Your task to perform on an android device: turn off notifications settings in the gmail app Image 0: 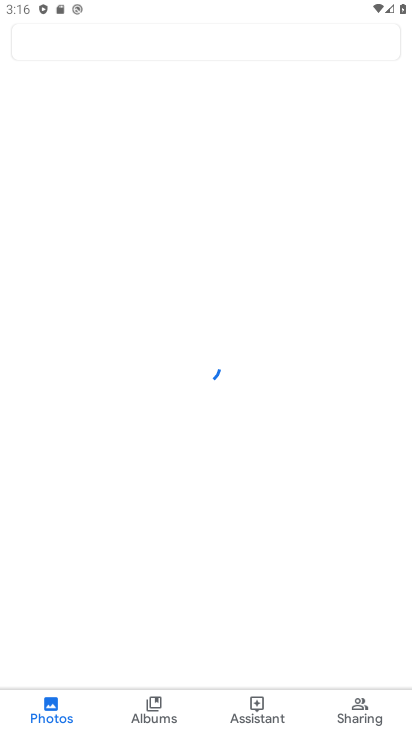
Step 0: press home button
Your task to perform on an android device: turn off notifications settings in the gmail app Image 1: 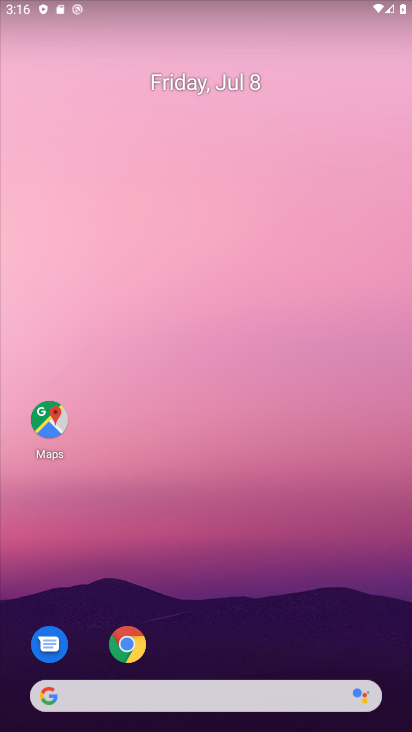
Step 1: drag from (190, 708) to (276, 195)
Your task to perform on an android device: turn off notifications settings in the gmail app Image 2: 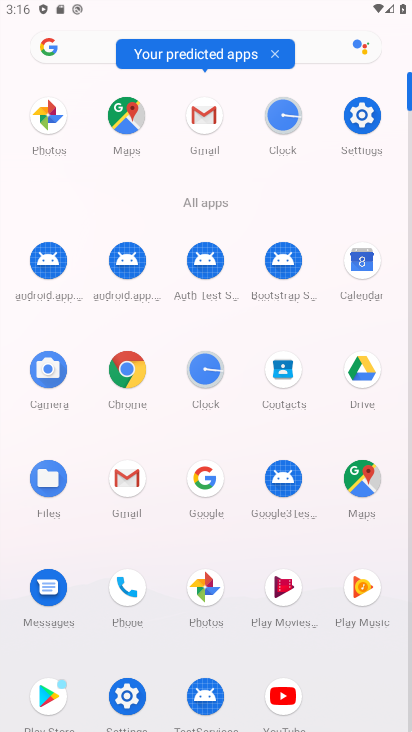
Step 2: click (119, 489)
Your task to perform on an android device: turn off notifications settings in the gmail app Image 3: 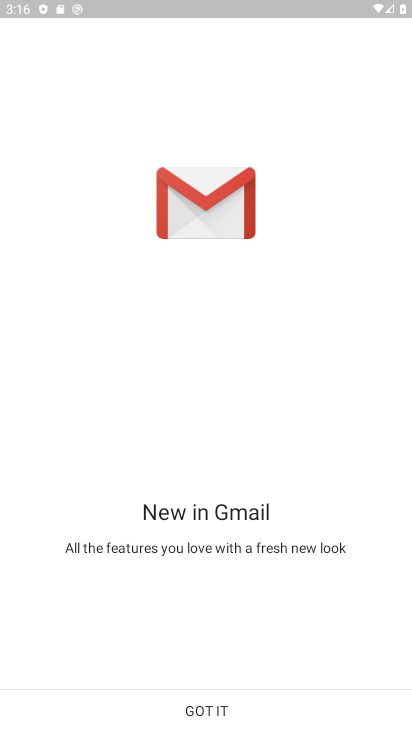
Step 3: click (225, 713)
Your task to perform on an android device: turn off notifications settings in the gmail app Image 4: 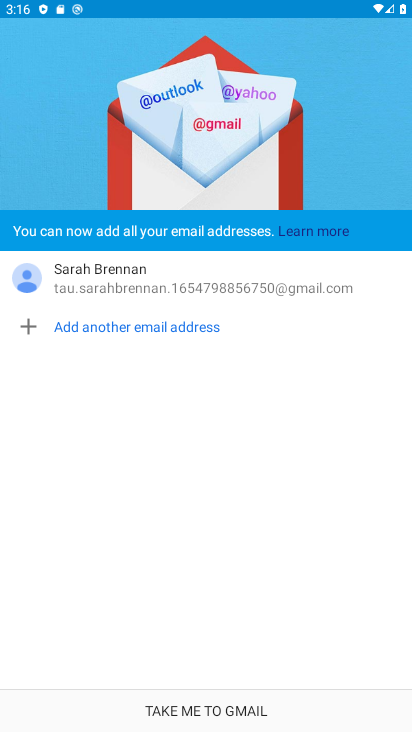
Step 4: click (218, 714)
Your task to perform on an android device: turn off notifications settings in the gmail app Image 5: 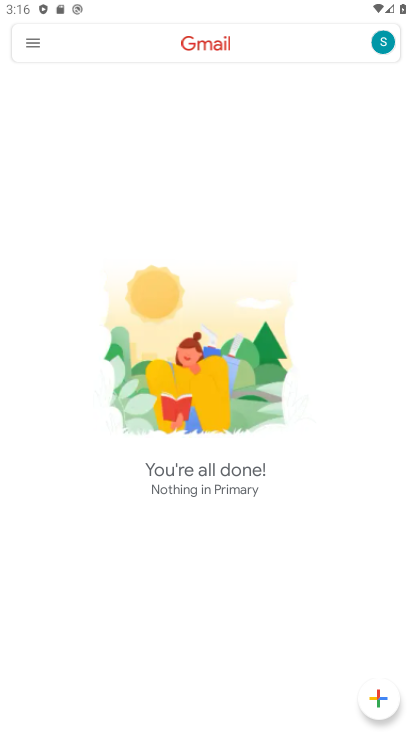
Step 5: click (30, 42)
Your task to perform on an android device: turn off notifications settings in the gmail app Image 6: 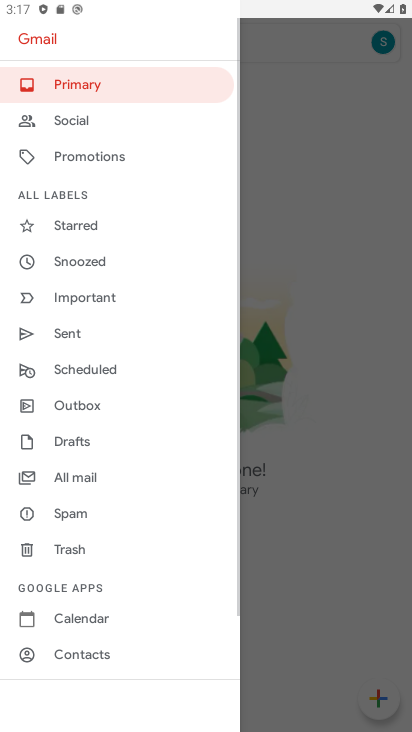
Step 6: drag from (114, 631) to (175, 337)
Your task to perform on an android device: turn off notifications settings in the gmail app Image 7: 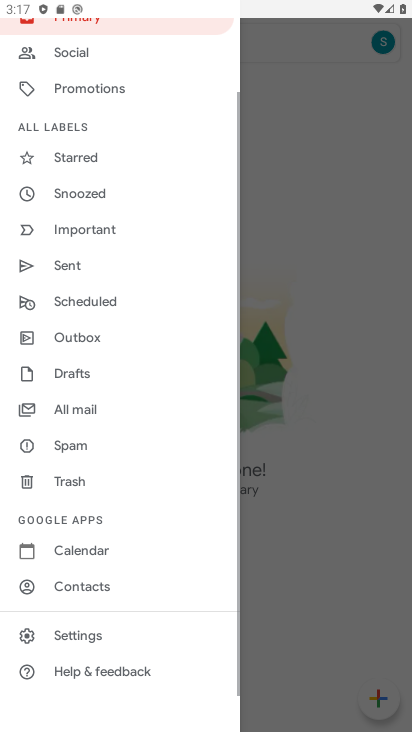
Step 7: click (130, 643)
Your task to perform on an android device: turn off notifications settings in the gmail app Image 8: 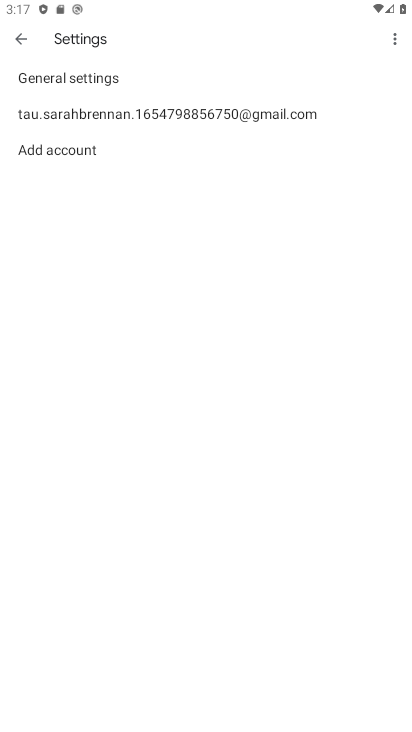
Step 8: click (231, 117)
Your task to perform on an android device: turn off notifications settings in the gmail app Image 9: 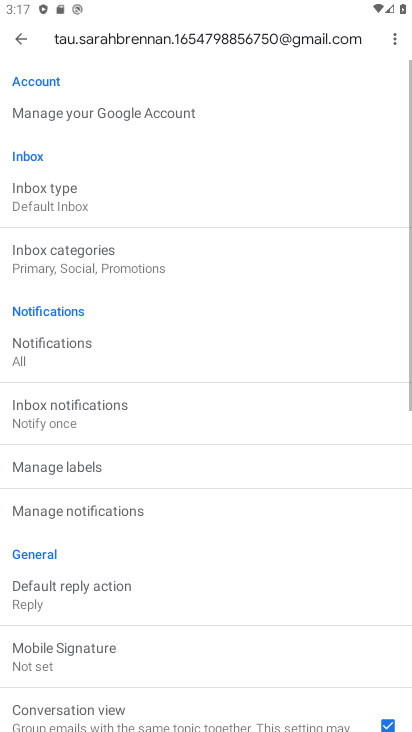
Step 9: drag from (163, 610) to (232, 354)
Your task to perform on an android device: turn off notifications settings in the gmail app Image 10: 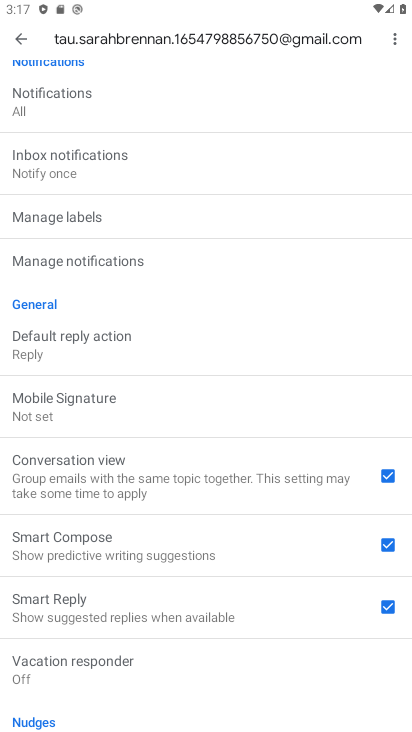
Step 10: click (137, 245)
Your task to perform on an android device: turn off notifications settings in the gmail app Image 11: 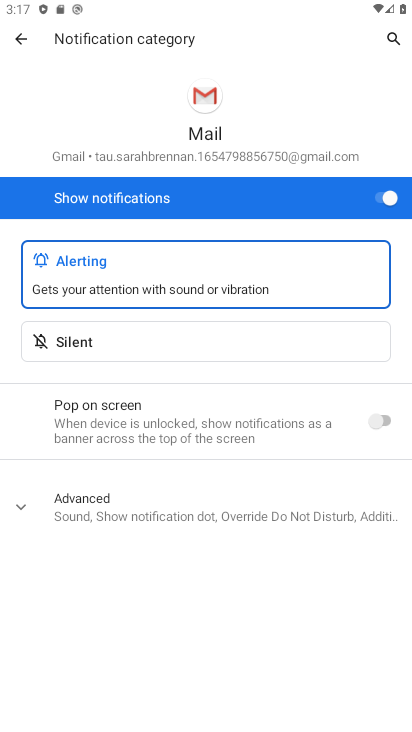
Step 11: click (390, 198)
Your task to perform on an android device: turn off notifications settings in the gmail app Image 12: 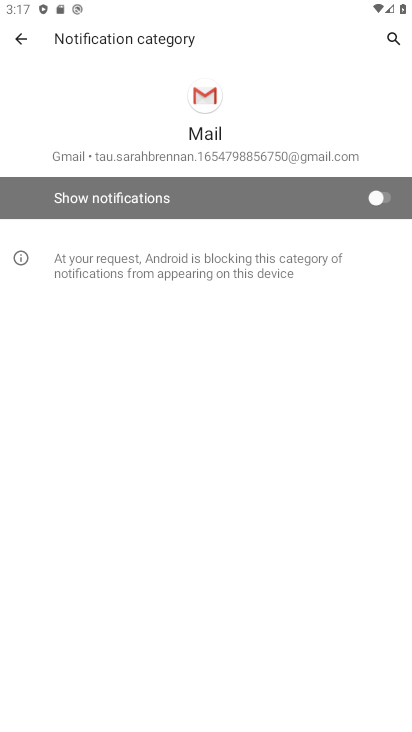
Step 12: task complete